Your task to perform on an android device: Go to display settings Image 0: 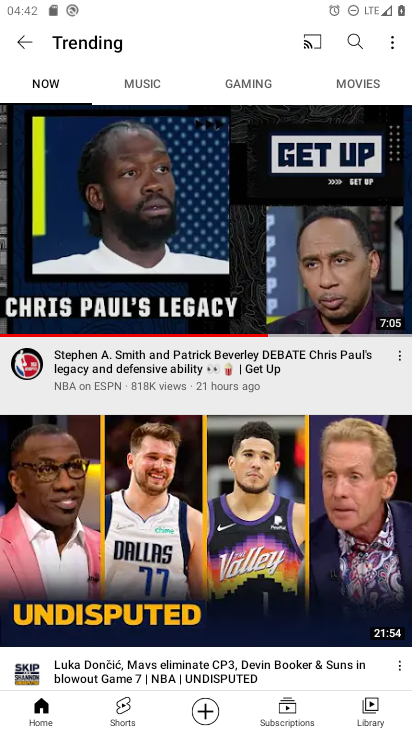
Step 0: press home button
Your task to perform on an android device: Go to display settings Image 1: 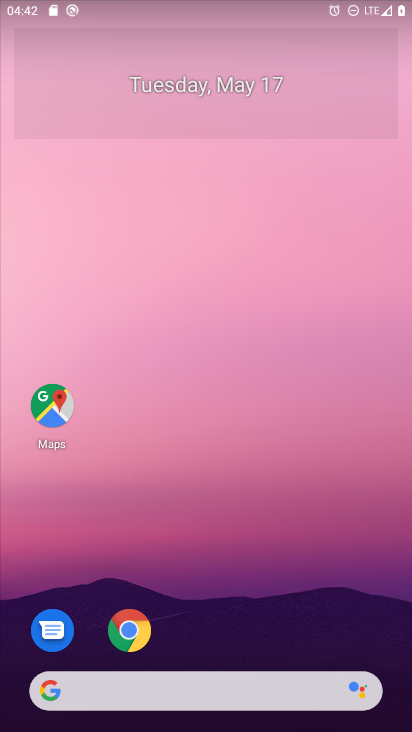
Step 1: drag from (208, 625) to (242, 80)
Your task to perform on an android device: Go to display settings Image 2: 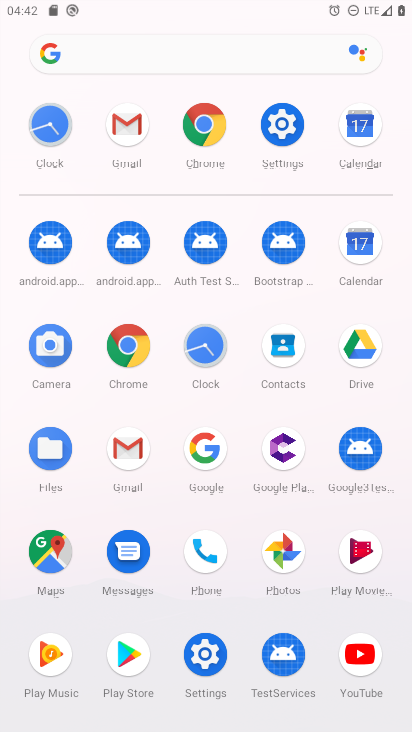
Step 2: click (280, 140)
Your task to perform on an android device: Go to display settings Image 3: 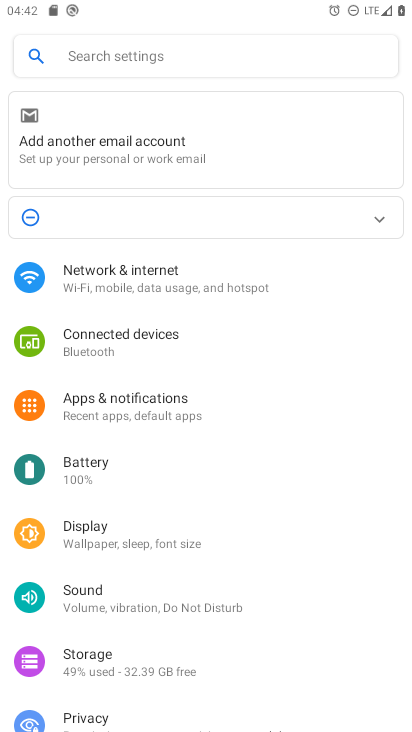
Step 3: click (99, 526)
Your task to perform on an android device: Go to display settings Image 4: 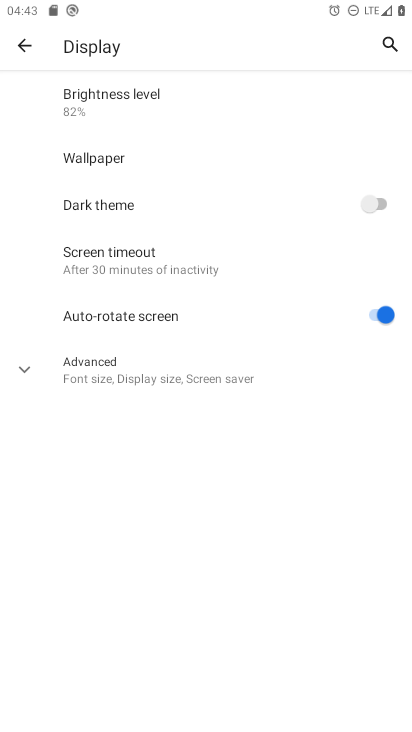
Step 4: task complete